Your task to perform on an android device: turn on wifi Image 0: 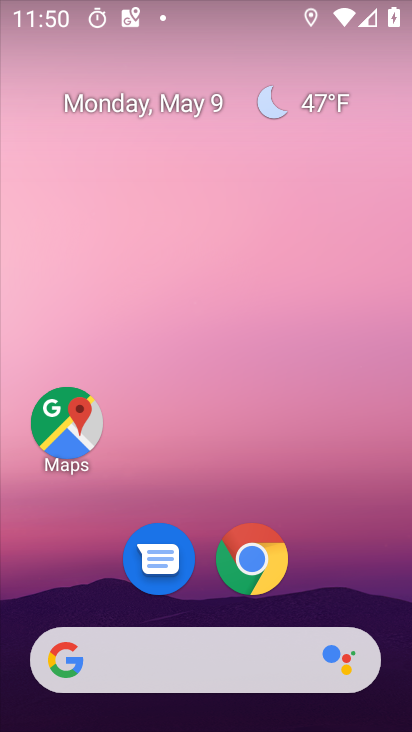
Step 0: drag from (348, 241) to (338, 605)
Your task to perform on an android device: turn on wifi Image 1: 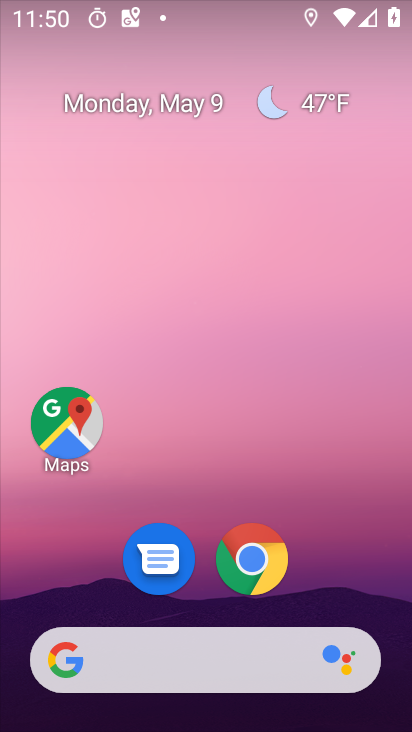
Step 1: task complete